Your task to perform on an android device: Do I have any events today? Image 0: 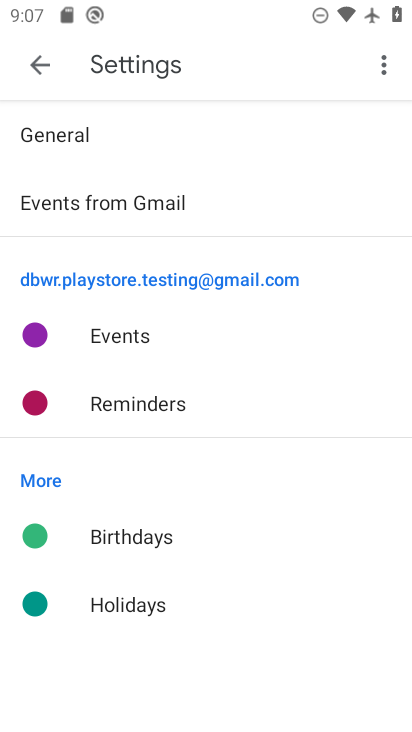
Step 0: press home button
Your task to perform on an android device: Do I have any events today? Image 1: 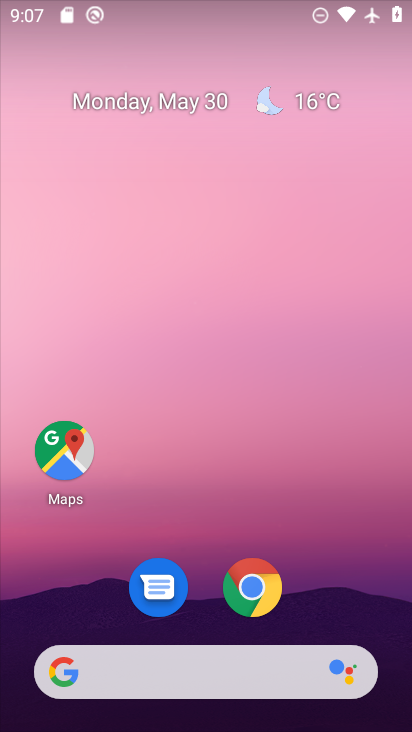
Step 1: drag from (177, 652) to (231, 73)
Your task to perform on an android device: Do I have any events today? Image 2: 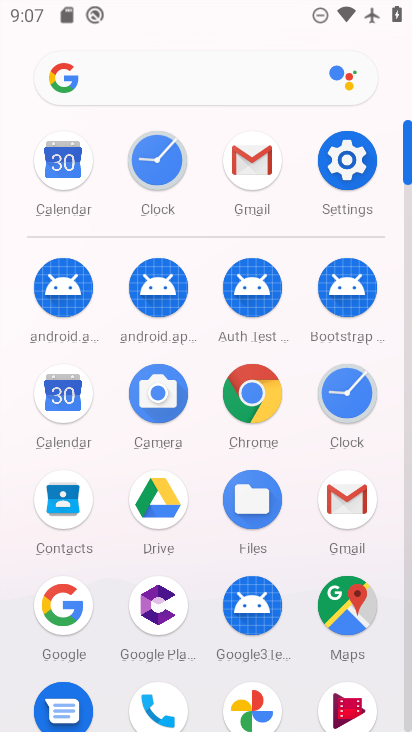
Step 2: click (58, 173)
Your task to perform on an android device: Do I have any events today? Image 3: 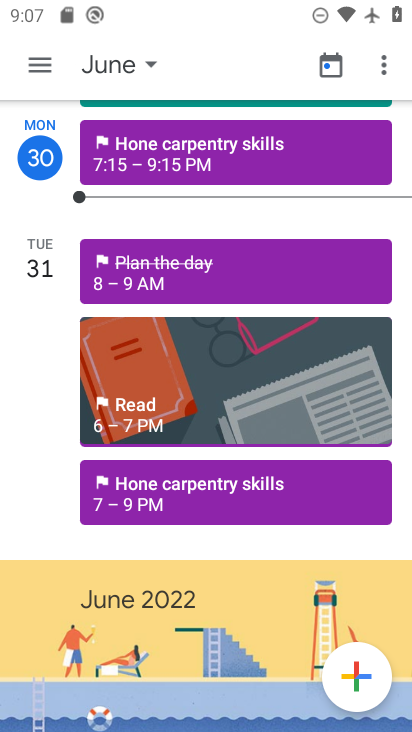
Step 3: click (110, 63)
Your task to perform on an android device: Do I have any events today? Image 4: 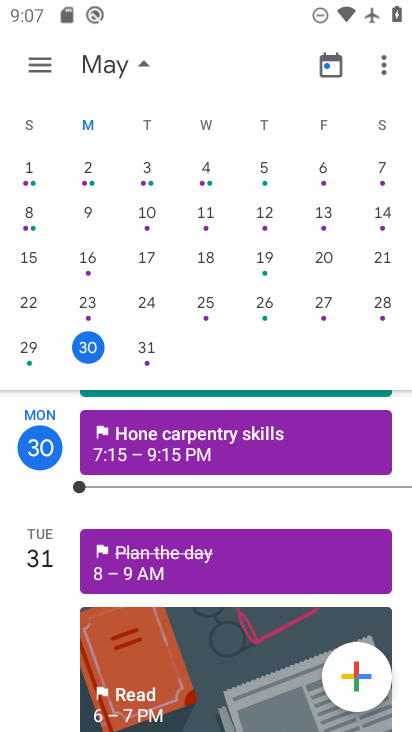
Step 4: drag from (46, 266) to (396, 296)
Your task to perform on an android device: Do I have any events today? Image 5: 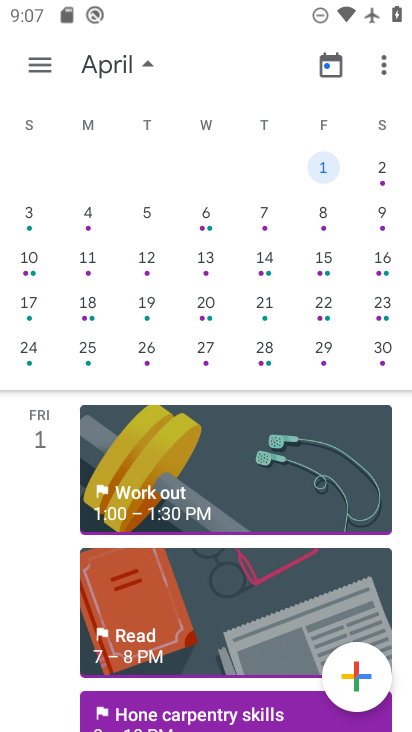
Step 5: drag from (348, 304) to (40, 335)
Your task to perform on an android device: Do I have any events today? Image 6: 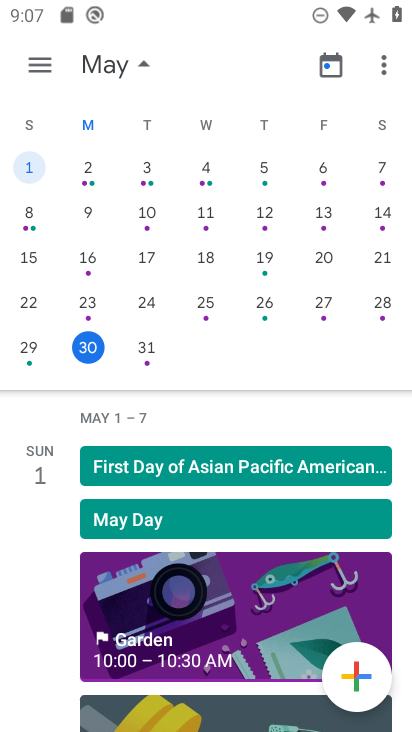
Step 6: click (96, 346)
Your task to perform on an android device: Do I have any events today? Image 7: 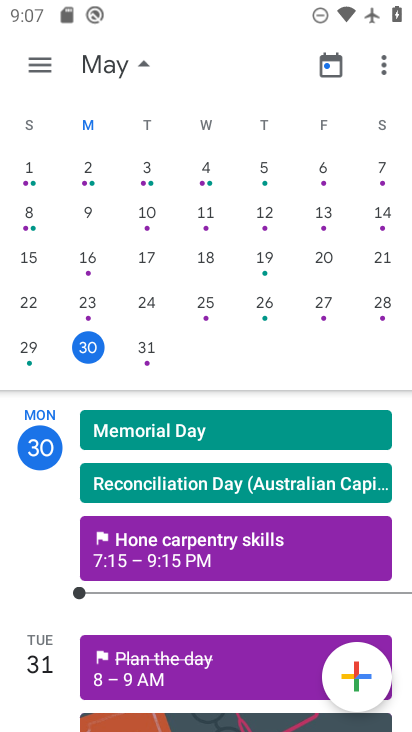
Step 7: click (36, 69)
Your task to perform on an android device: Do I have any events today? Image 8: 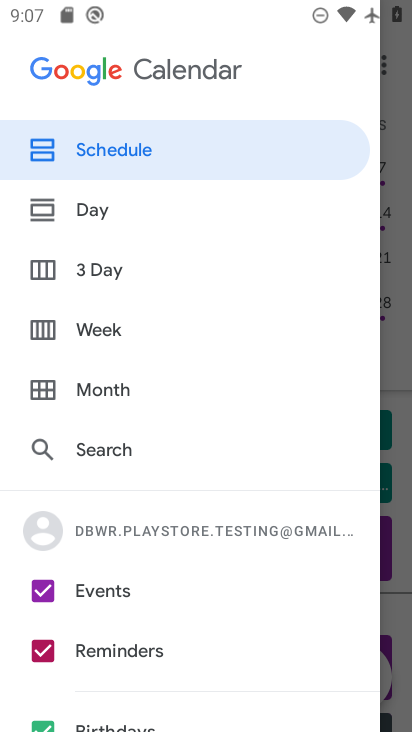
Step 8: click (94, 148)
Your task to perform on an android device: Do I have any events today? Image 9: 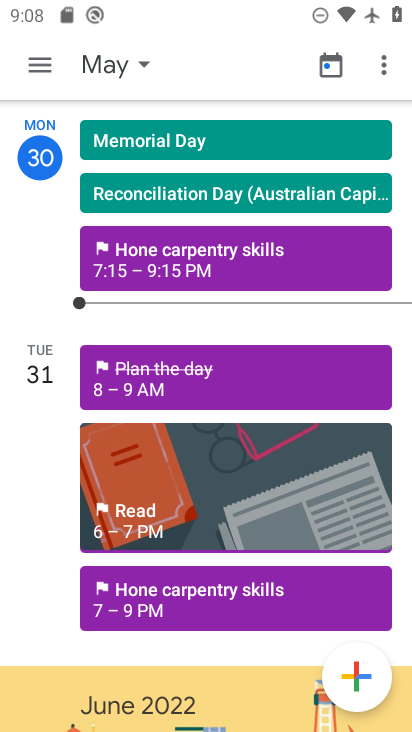
Step 9: click (260, 260)
Your task to perform on an android device: Do I have any events today? Image 10: 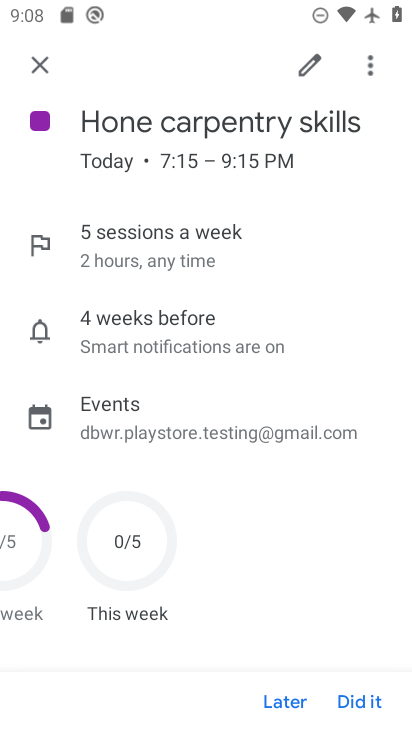
Step 10: task complete